Your task to perform on an android device: turn on priority inbox in the gmail app Image 0: 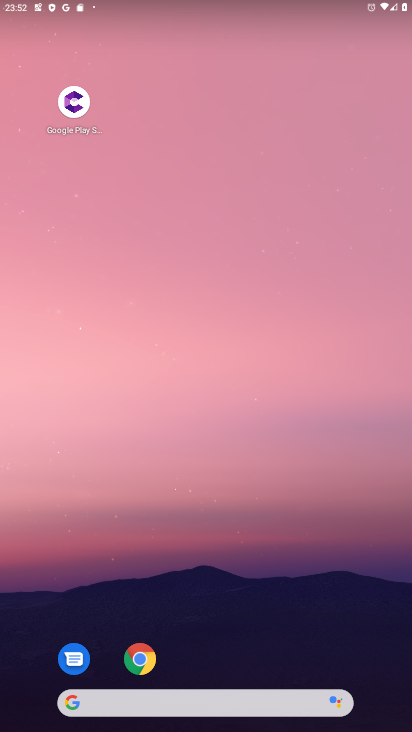
Step 0: drag from (224, 606) to (212, 504)
Your task to perform on an android device: turn on priority inbox in the gmail app Image 1: 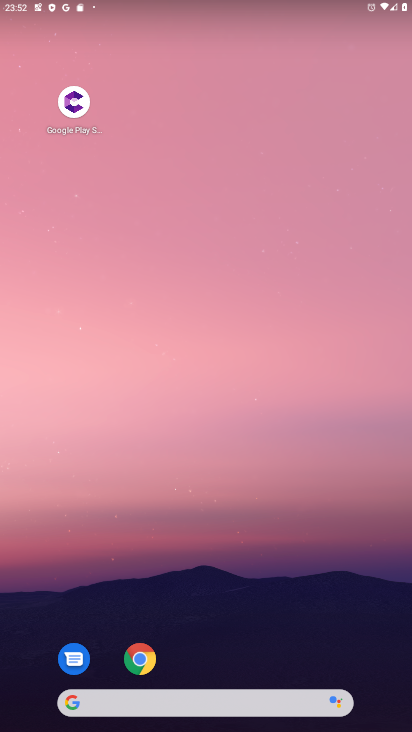
Step 1: drag from (293, 577) to (228, 1)
Your task to perform on an android device: turn on priority inbox in the gmail app Image 2: 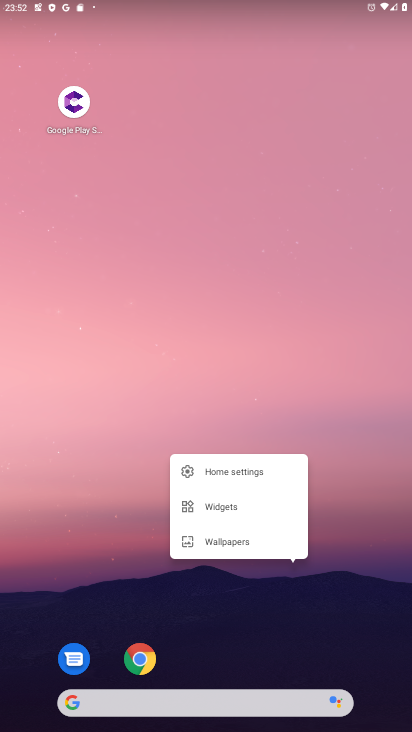
Step 2: drag from (233, 670) to (187, 179)
Your task to perform on an android device: turn on priority inbox in the gmail app Image 3: 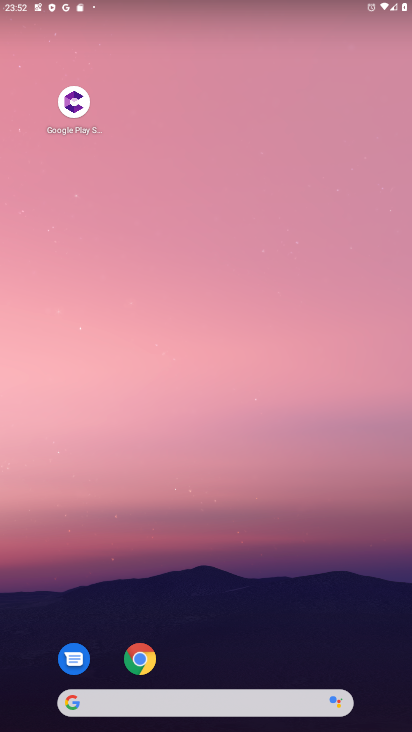
Step 3: click (71, 446)
Your task to perform on an android device: turn on priority inbox in the gmail app Image 4: 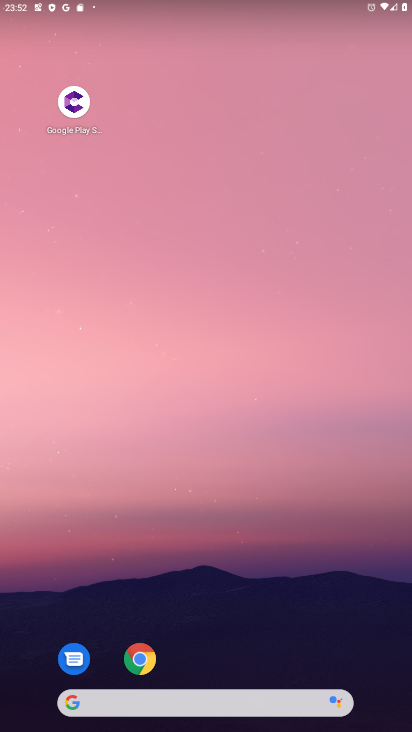
Step 4: drag from (291, 646) to (358, 59)
Your task to perform on an android device: turn on priority inbox in the gmail app Image 5: 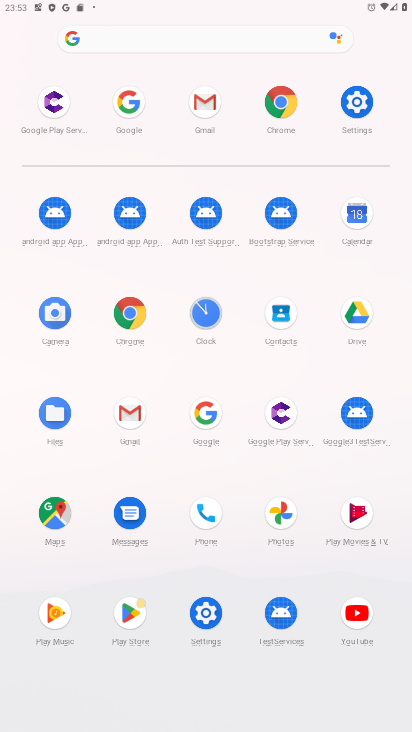
Step 5: click (212, 112)
Your task to perform on an android device: turn on priority inbox in the gmail app Image 6: 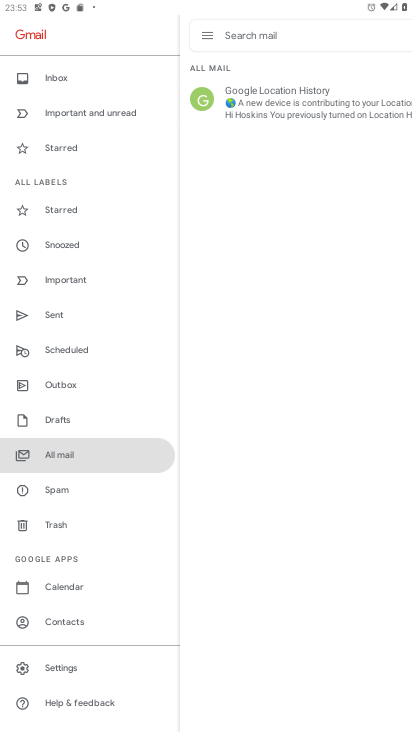
Step 6: click (44, 665)
Your task to perform on an android device: turn on priority inbox in the gmail app Image 7: 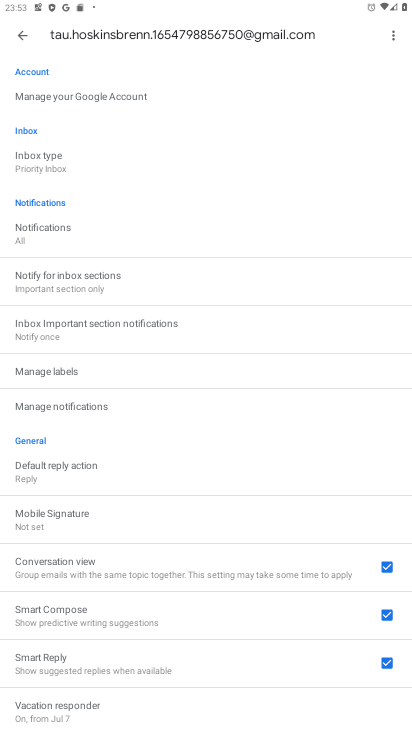
Step 7: click (42, 159)
Your task to perform on an android device: turn on priority inbox in the gmail app Image 8: 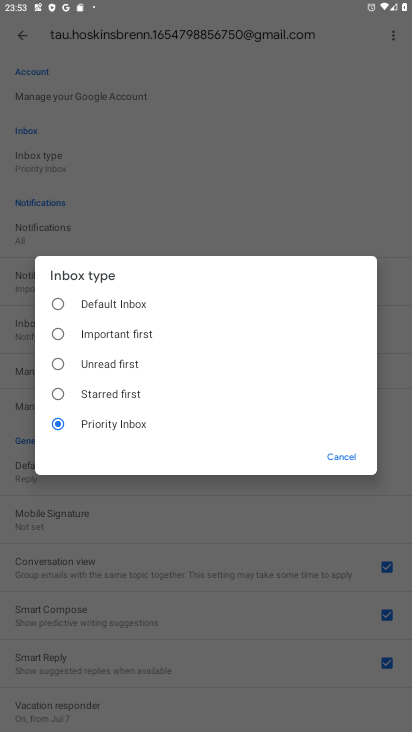
Step 8: click (127, 417)
Your task to perform on an android device: turn on priority inbox in the gmail app Image 9: 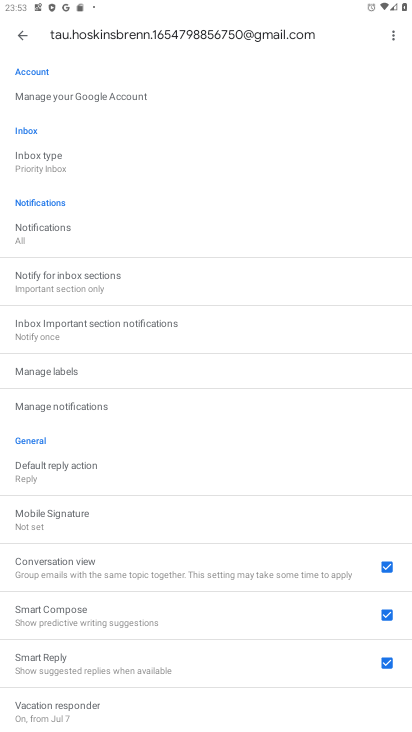
Step 9: task complete